Your task to perform on an android device: open app "Upside-Cash back on gas & food" Image 0: 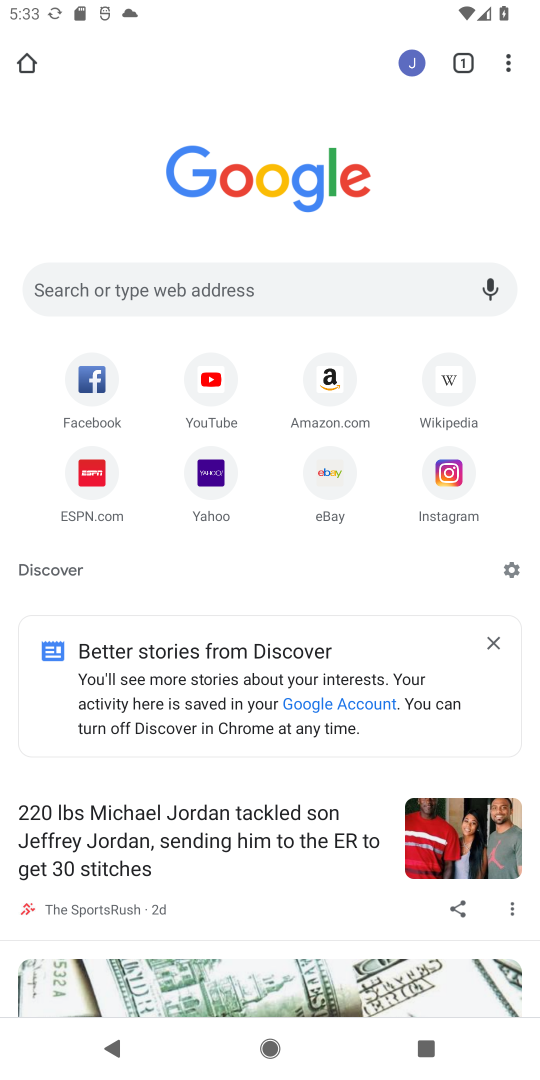
Step 0: press home button
Your task to perform on an android device: open app "Upside-Cash back on gas & food" Image 1: 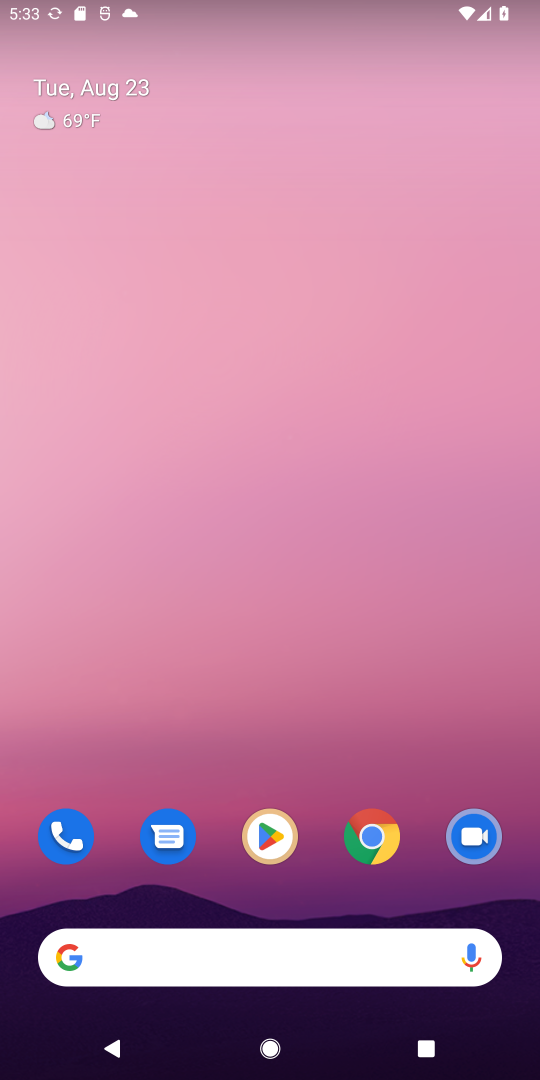
Step 1: click (268, 837)
Your task to perform on an android device: open app "Upside-Cash back on gas & food" Image 2: 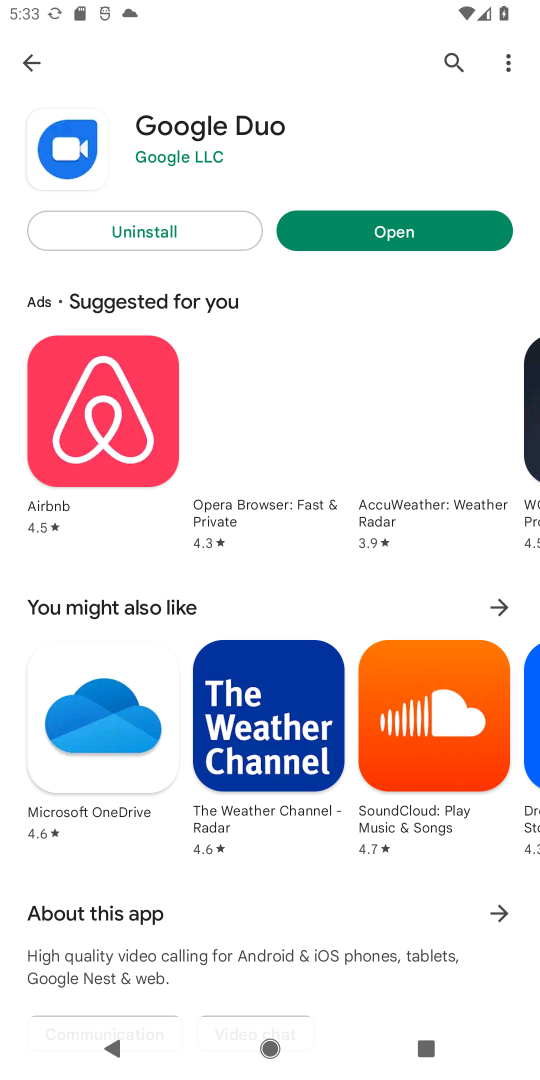
Step 2: click (452, 61)
Your task to perform on an android device: open app "Upside-Cash back on gas & food" Image 3: 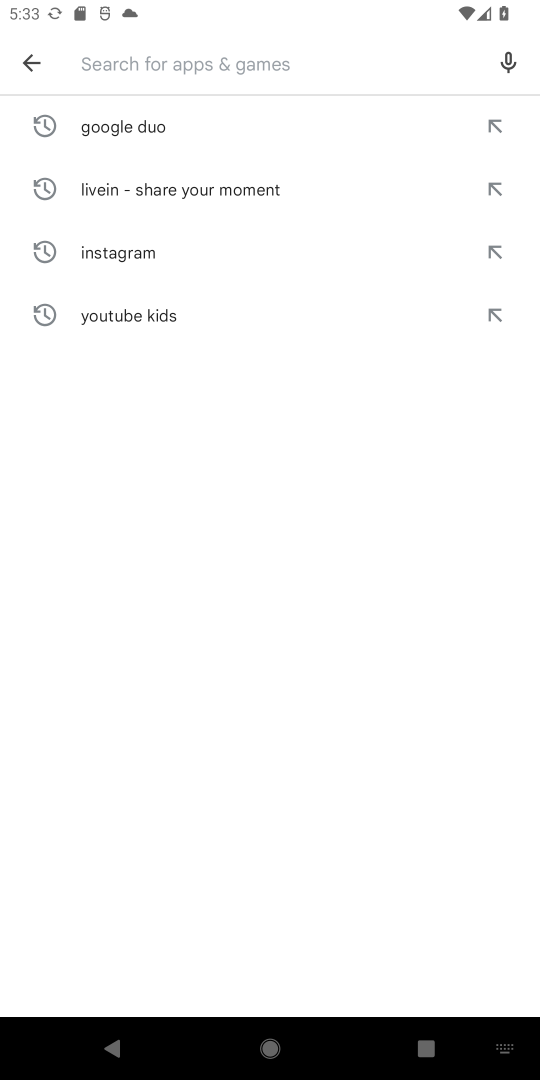
Step 3: type "Upside-Cash back on gas & food"
Your task to perform on an android device: open app "Upside-Cash back on gas & food" Image 4: 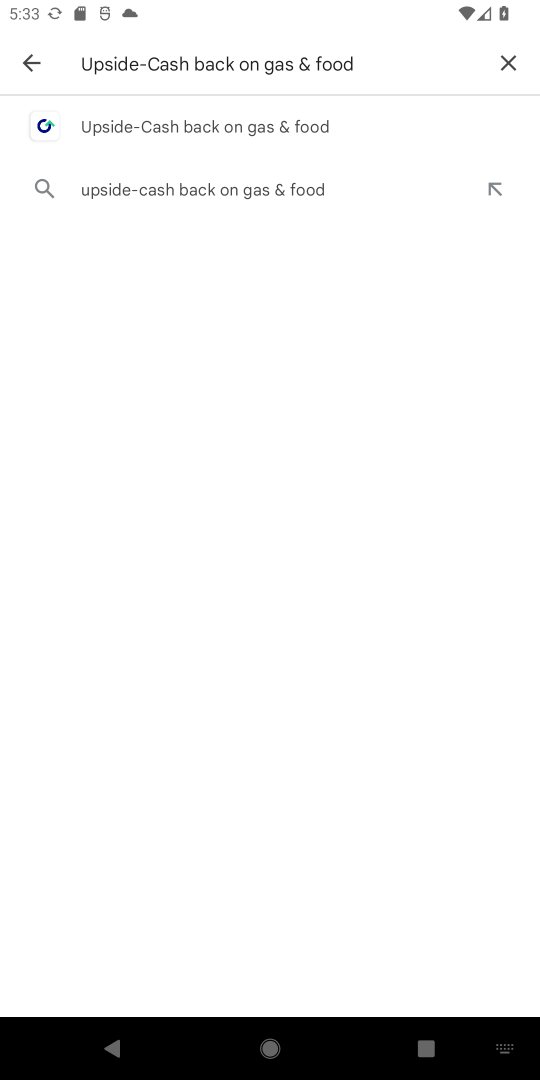
Step 4: click (197, 121)
Your task to perform on an android device: open app "Upside-Cash back on gas & food" Image 5: 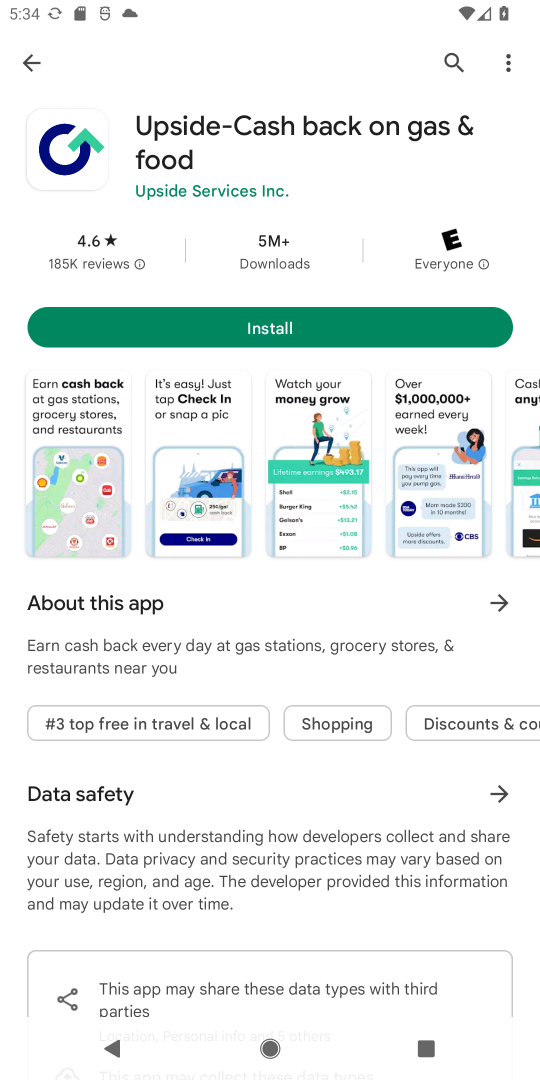
Step 5: task complete